Your task to perform on an android device: Go to CNN.com Image 0: 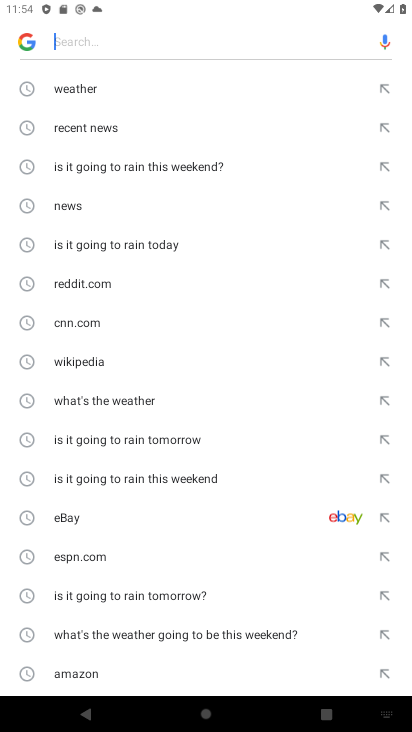
Step 0: click (113, 320)
Your task to perform on an android device: Go to CNN.com Image 1: 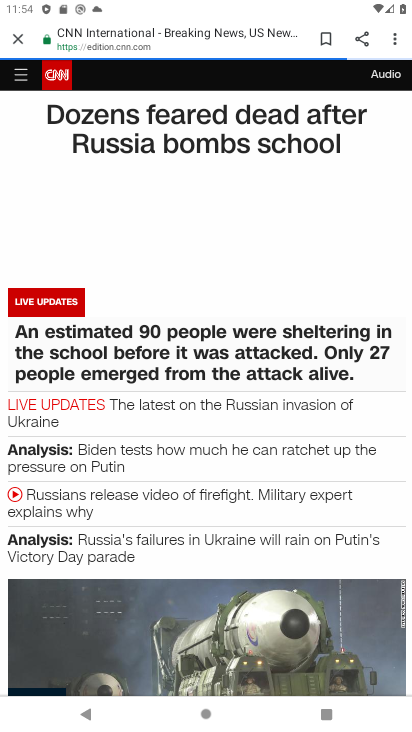
Step 1: task complete